Your task to perform on an android device: add a contact Image 0: 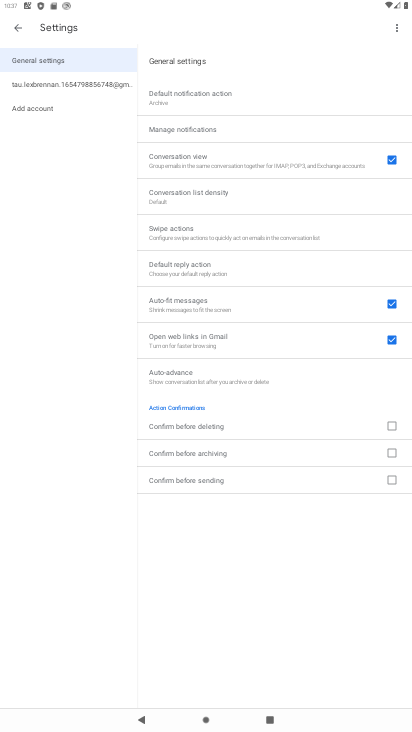
Step 0: task complete